Your task to perform on an android device: Go to privacy settings Image 0: 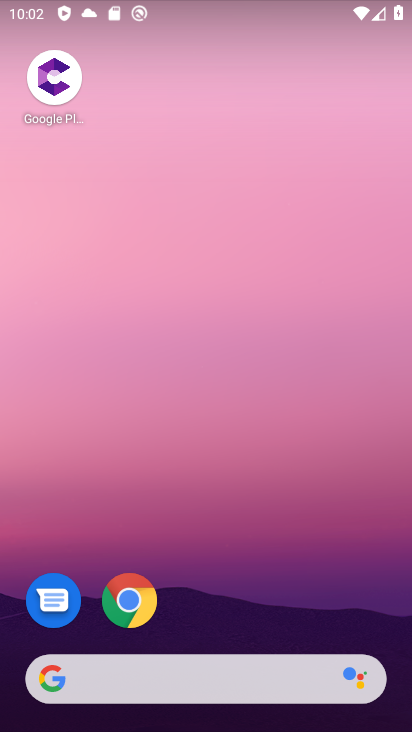
Step 0: drag from (244, 577) to (60, 5)
Your task to perform on an android device: Go to privacy settings Image 1: 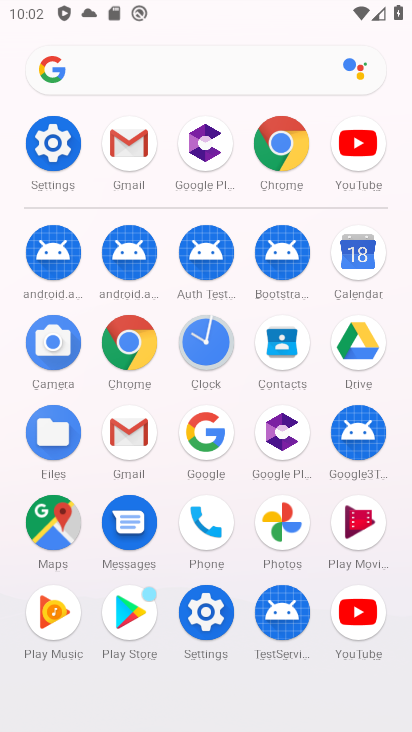
Step 1: click (51, 147)
Your task to perform on an android device: Go to privacy settings Image 2: 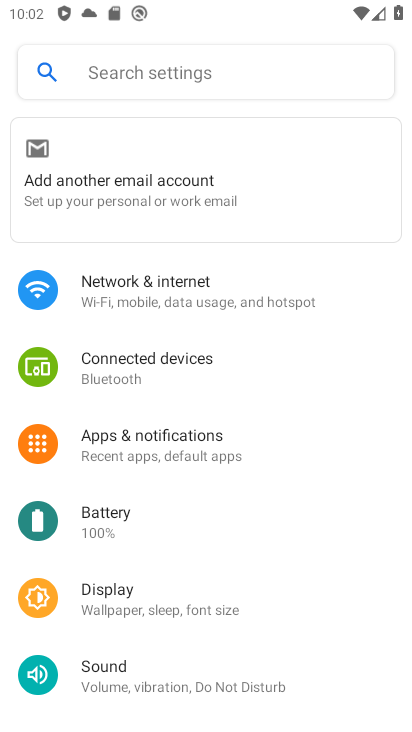
Step 2: drag from (136, 636) to (103, 153)
Your task to perform on an android device: Go to privacy settings Image 3: 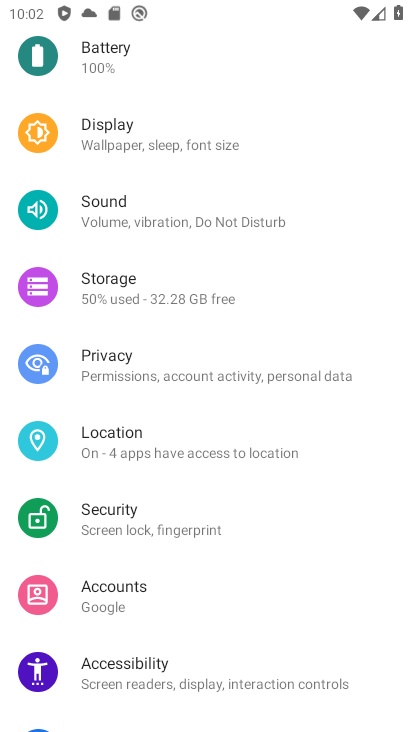
Step 3: click (102, 350)
Your task to perform on an android device: Go to privacy settings Image 4: 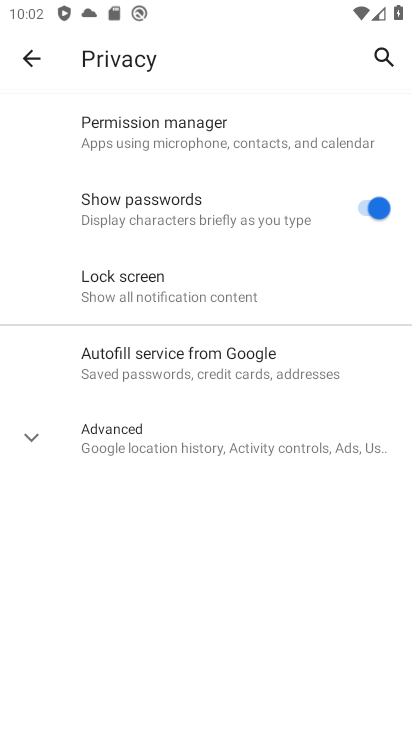
Step 4: task complete